Your task to perform on an android device: Go to Google Image 0: 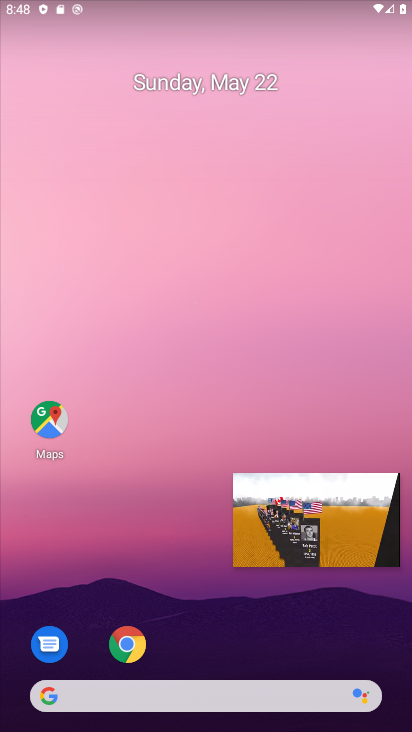
Step 0: drag from (342, 524) to (74, 711)
Your task to perform on an android device: Go to Google Image 1: 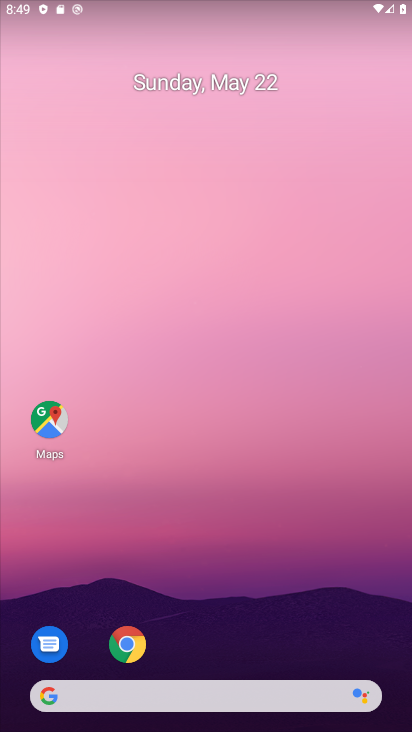
Step 1: drag from (162, 688) to (111, 268)
Your task to perform on an android device: Go to Google Image 2: 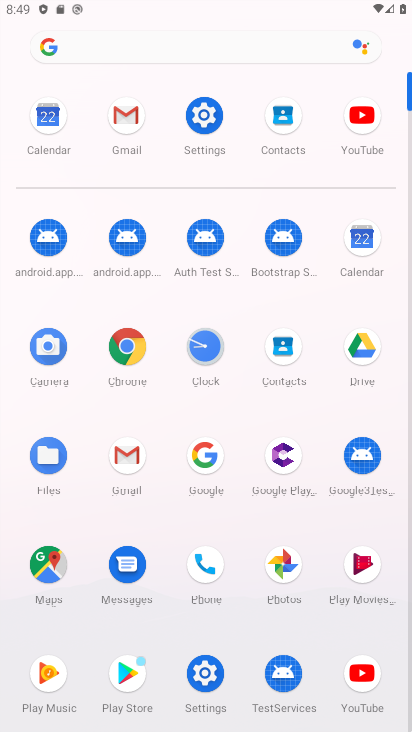
Step 2: click (191, 469)
Your task to perform on an android device: Go to Google Image 3: 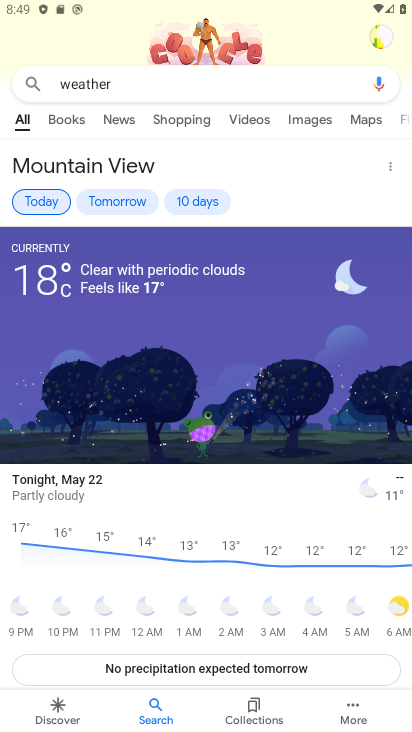
Step 3: task complete